Your task to perform on an android device: turn off javascript in the chrome app Image 0: 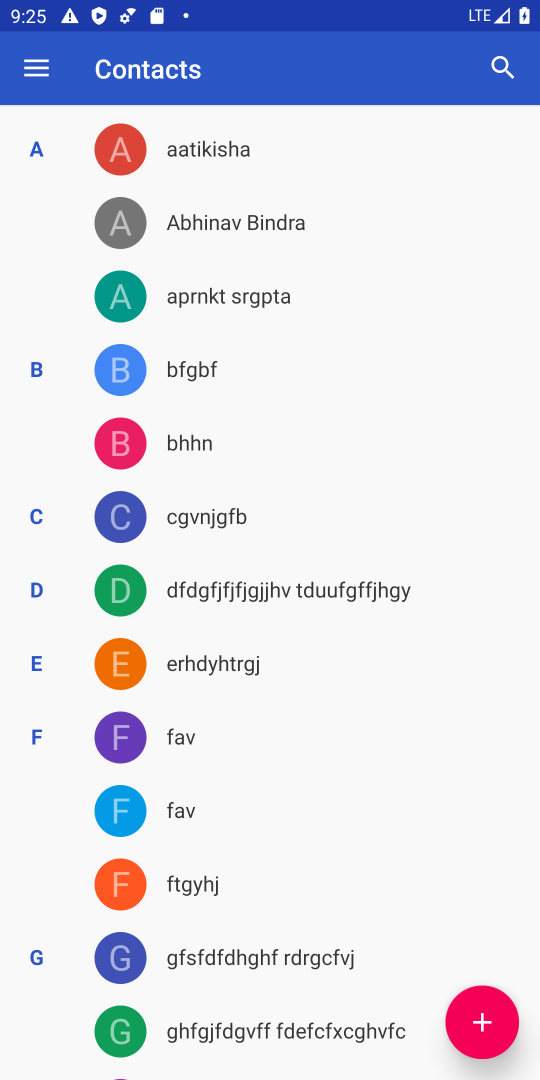
Step 0: press home button
Your task to perform on an android device: turn off javascript in the chrome app Image 1: 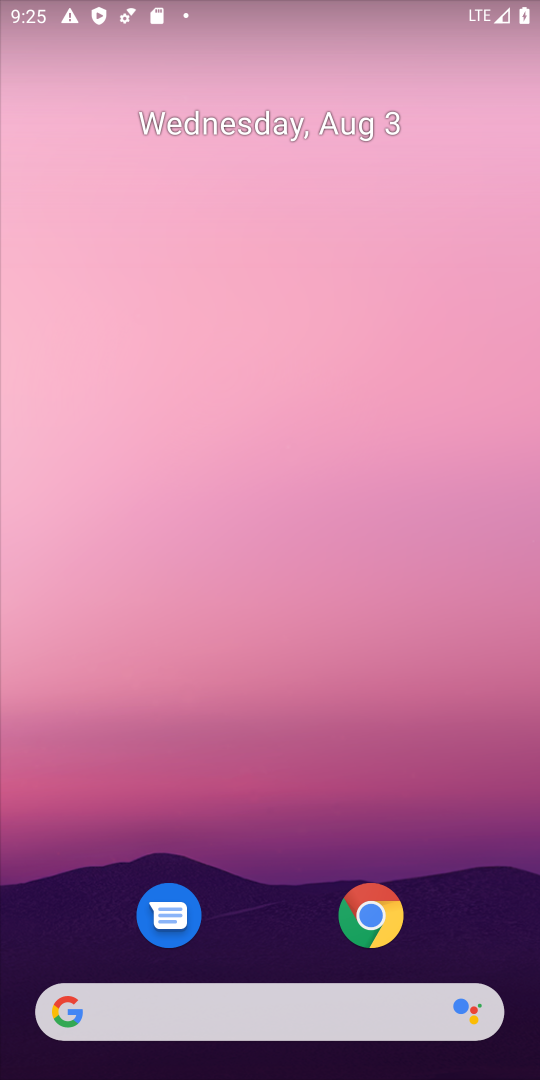
Step 1: click (357, 906)
Your task to perform on an android device: turn off javascript in the chrome app Image 2: 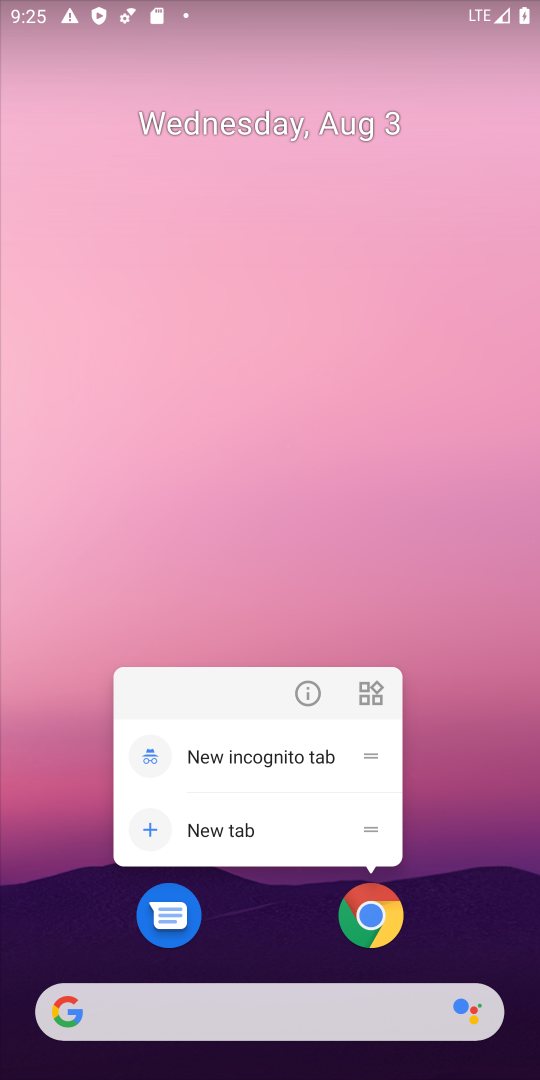
Step 2: click (387, 915)
Your task to perform on an android device: turn off javascript in the chrome app Image 3: 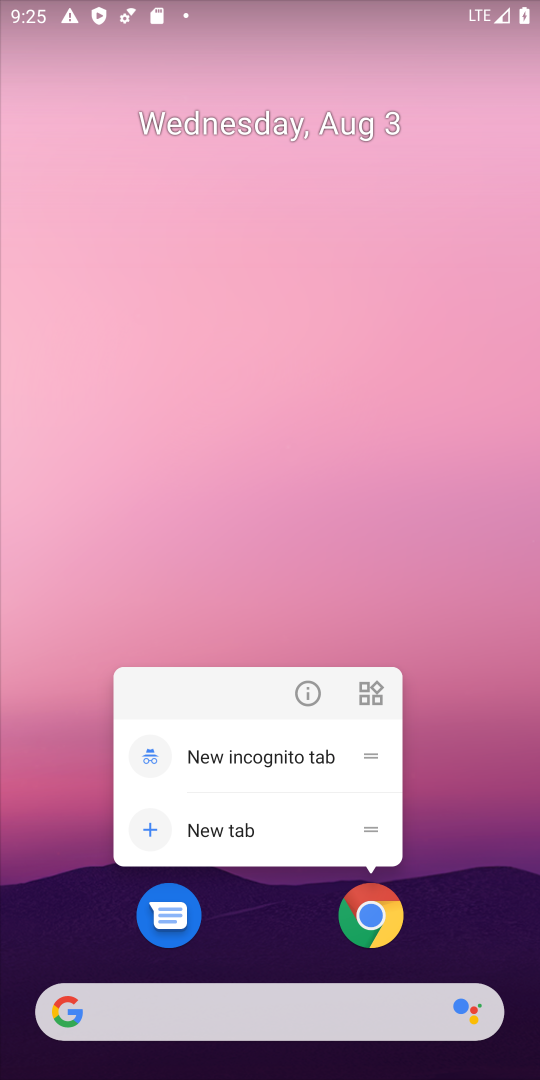
Step 3: click (370, 909)
Your task to perform on an android device: turn off javascript in the chrome app Image 4: 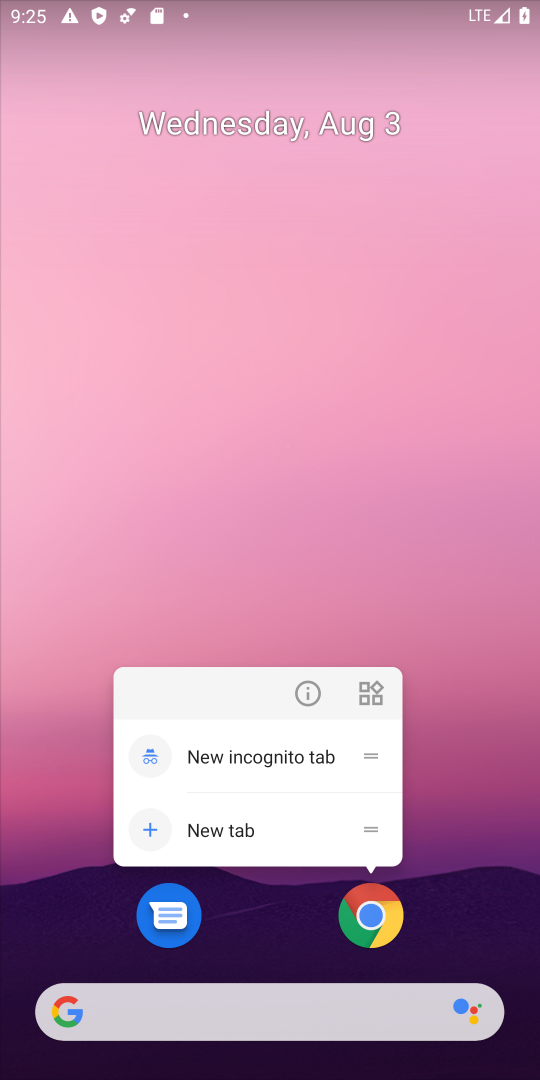
Step 4: click (354, 909)
Your task to perform on an android device: turn off javascript in the chrome app Image 5: 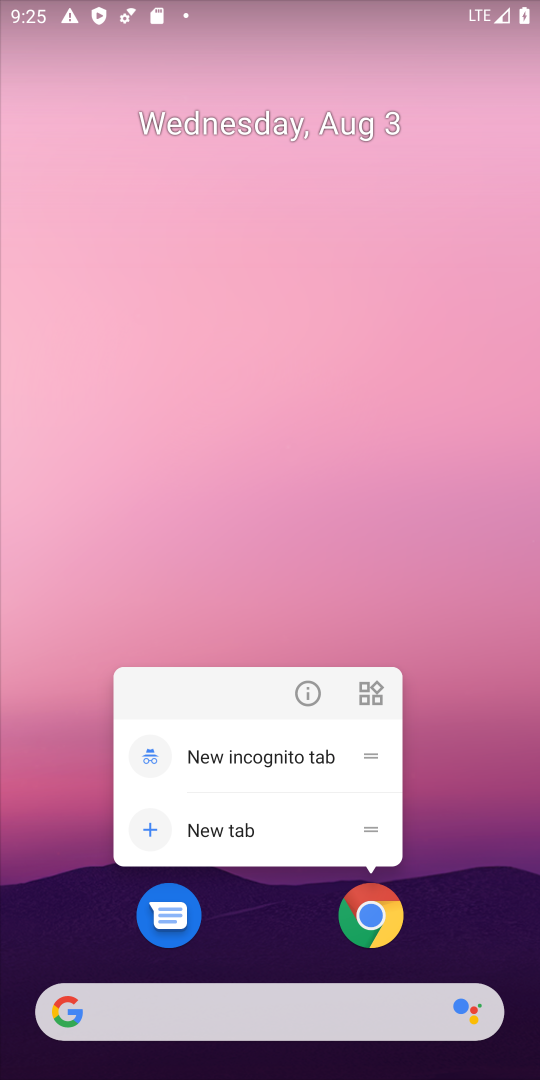
Step 5: click (371, 923)
Your task to perform on an android device: turn off javascript in the chrome app Image 6: 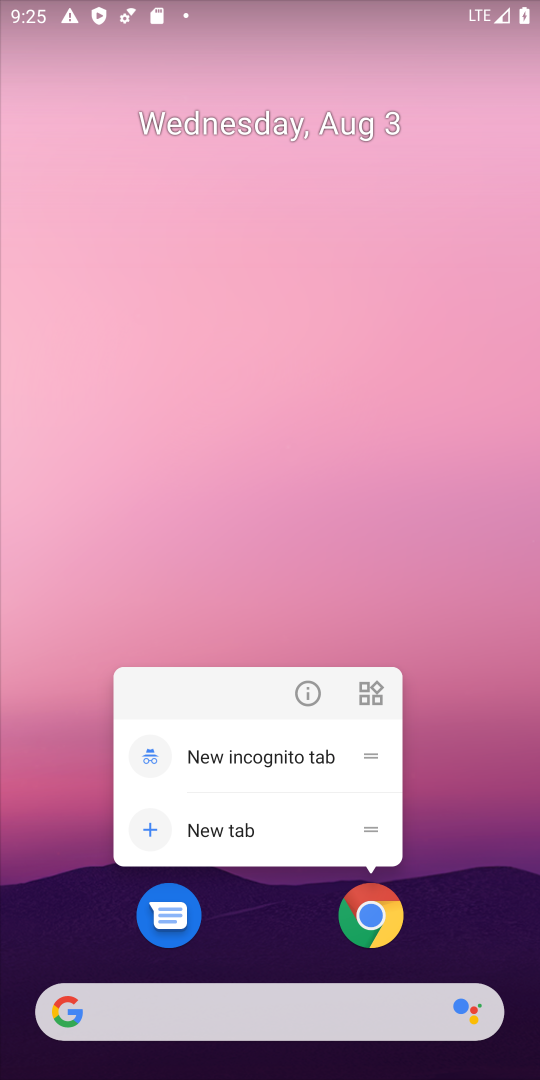
Step 6: click (353, 890)
Your task to perform on an android device: turn off javascript in the chrome app Image 7: 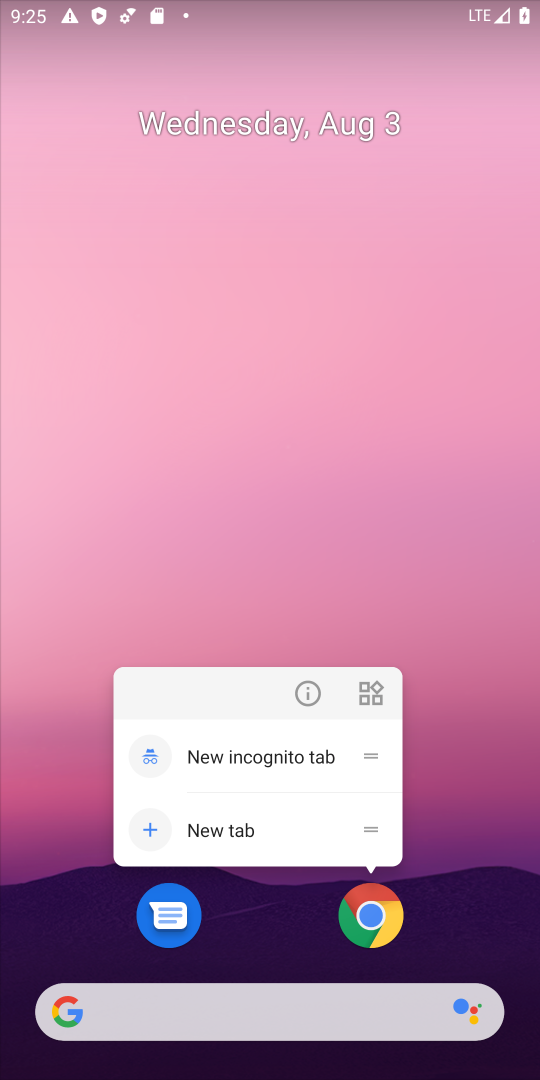
Step 7: click (368, 913)
Your task to perform on an android device: turn off javascript in the chrome app Image 8: 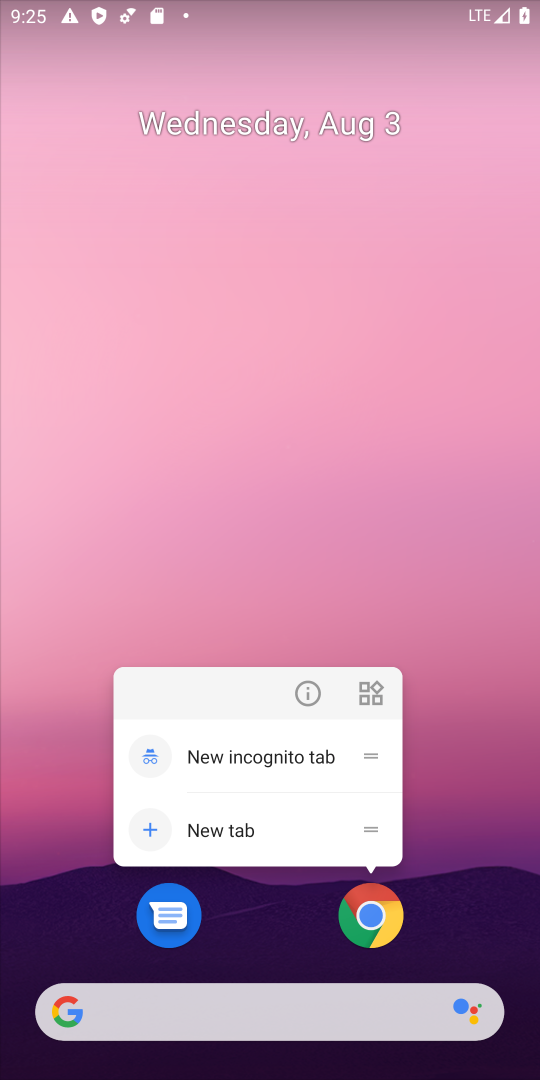
Step 8: click (365, 937)
Your task to perform on an android device: turn off javascript in the chrome app Image 9: 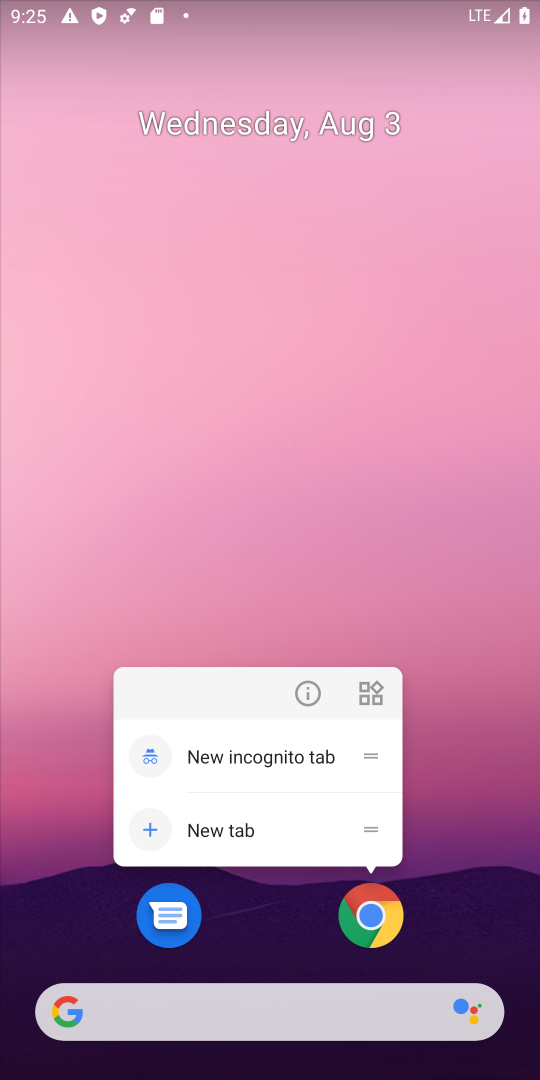
Step 9: click (341, 905)
Your task to perform on an android device: turn off javascript in the chrome app Image 10: 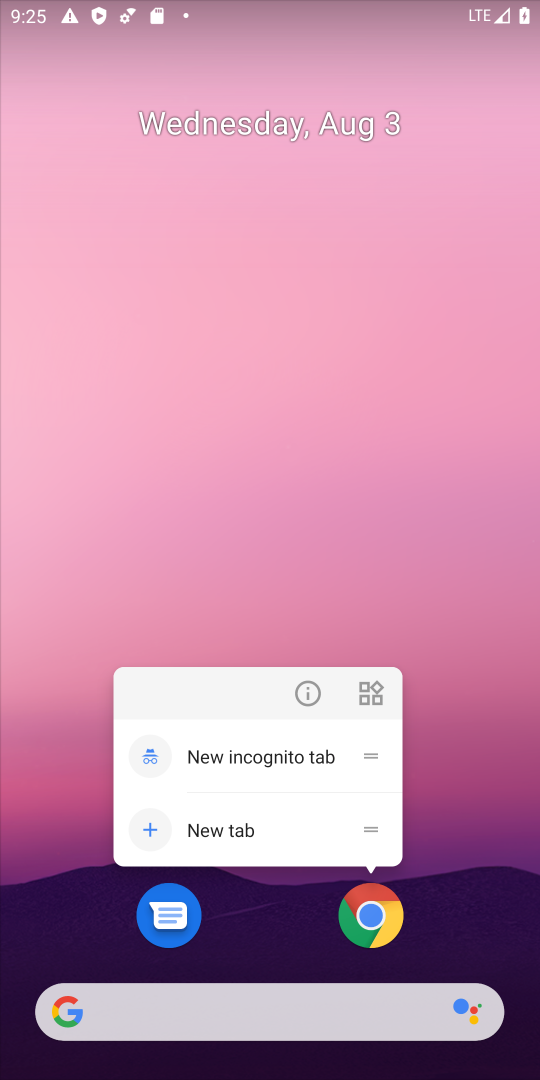
Step 10: click (376, 918)
Your task to perform on an android device: turn off javascript in the chrome app Image 11: 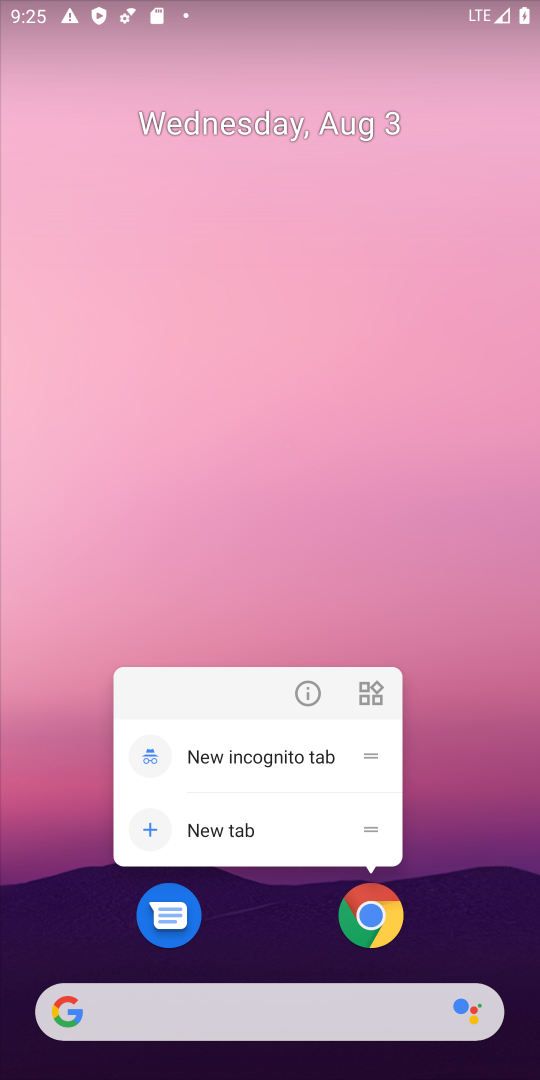
Step 11: drag from (216, 933) to (154, 389)
Your task to perform on an android device: turn off javascript in the chrome app Image 12: 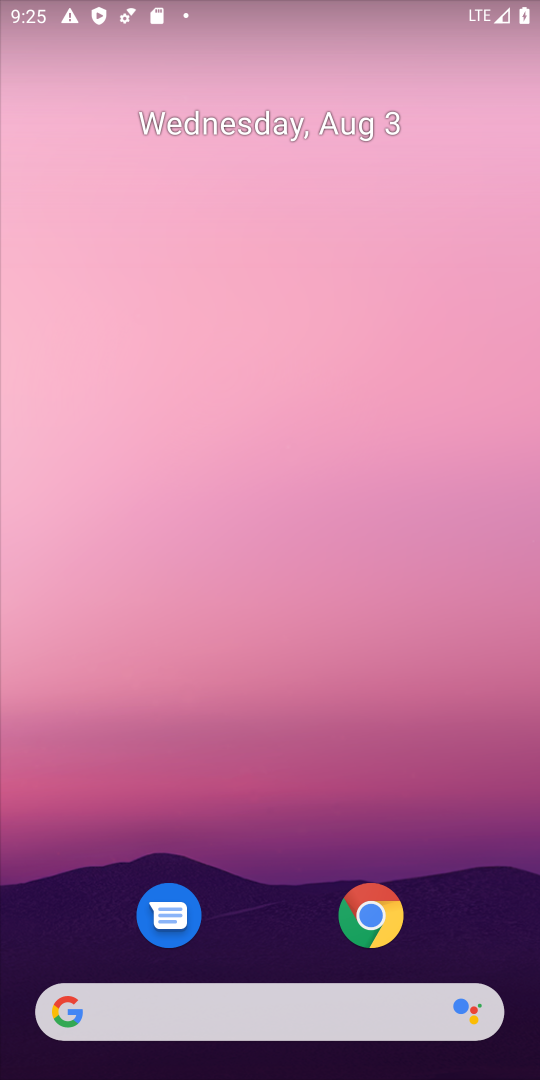
Step 12: drag from (316, 974) to (292, 342)
Your task to perform on an android device: turn off javascript in the chrome app Image 13: 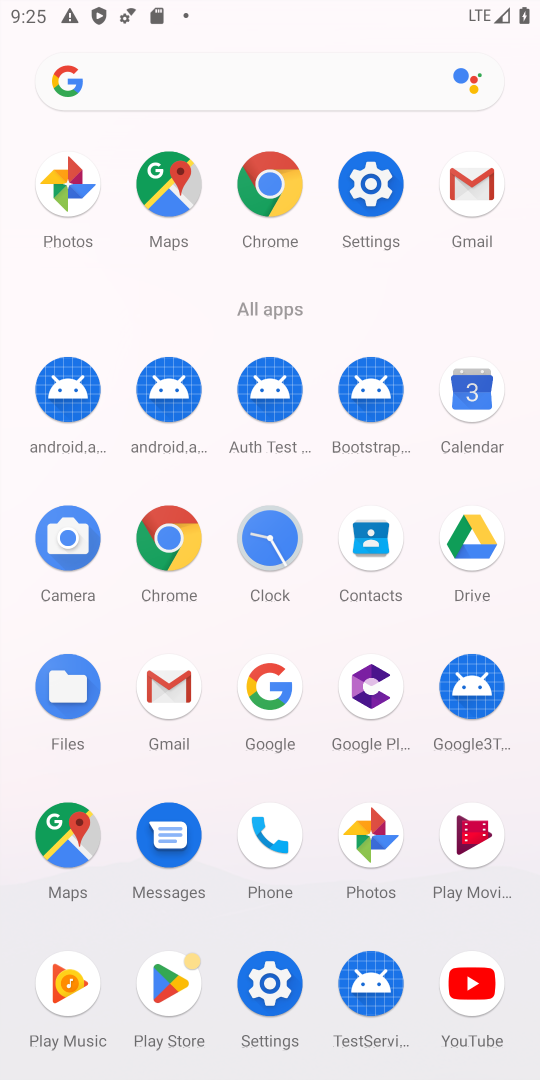
Step 13: click (154, 559)
Your task to perform on an android device: turn off javascript in the chrome app Image 14: 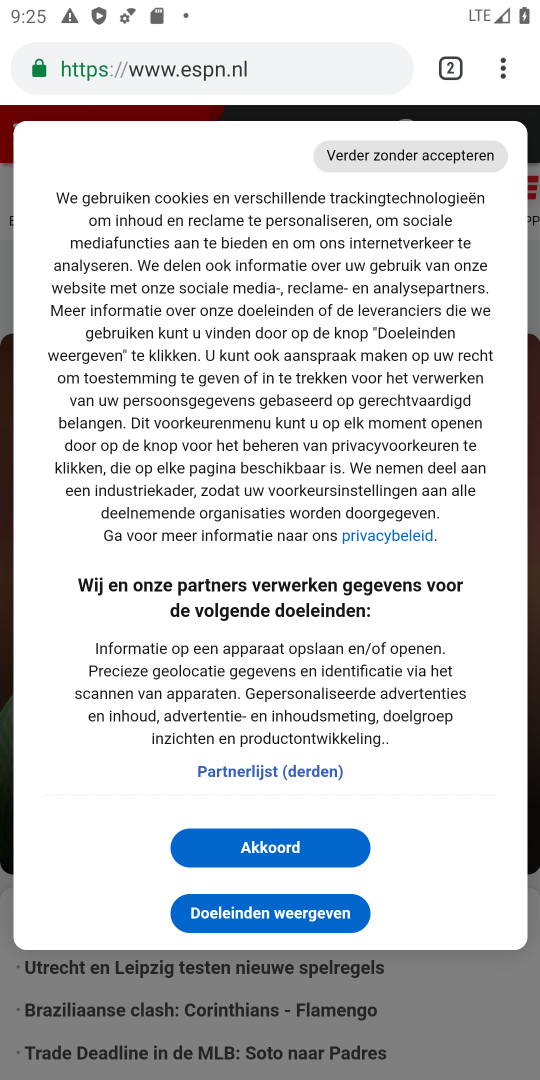
Step 14: click (491, 56)
Your task to perform on an android device: turn off javascript in the chrome app Image 15: 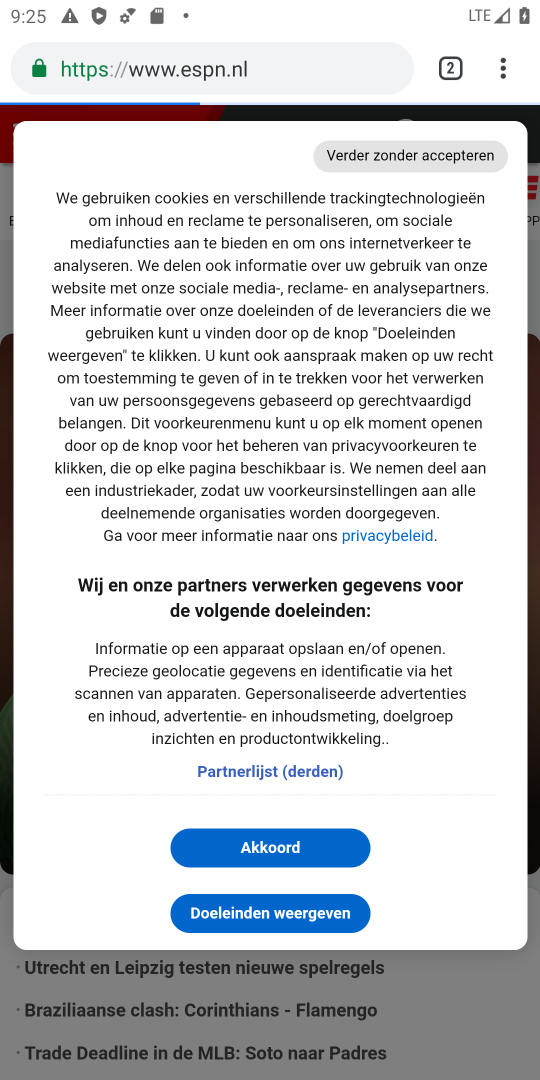
Step 15: click (500, 70)
Your task to perform on an android device: turn off javascript in the chrome app Image 16: 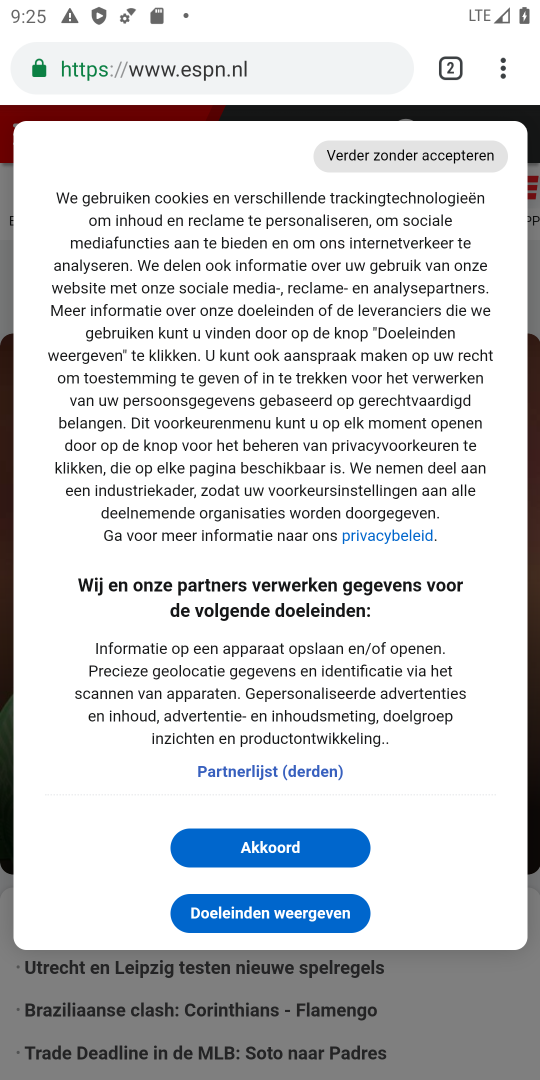
Step 16: click (511, 51)
Your task to perform on an android device: turn off javascript in the chrome app Image 17: 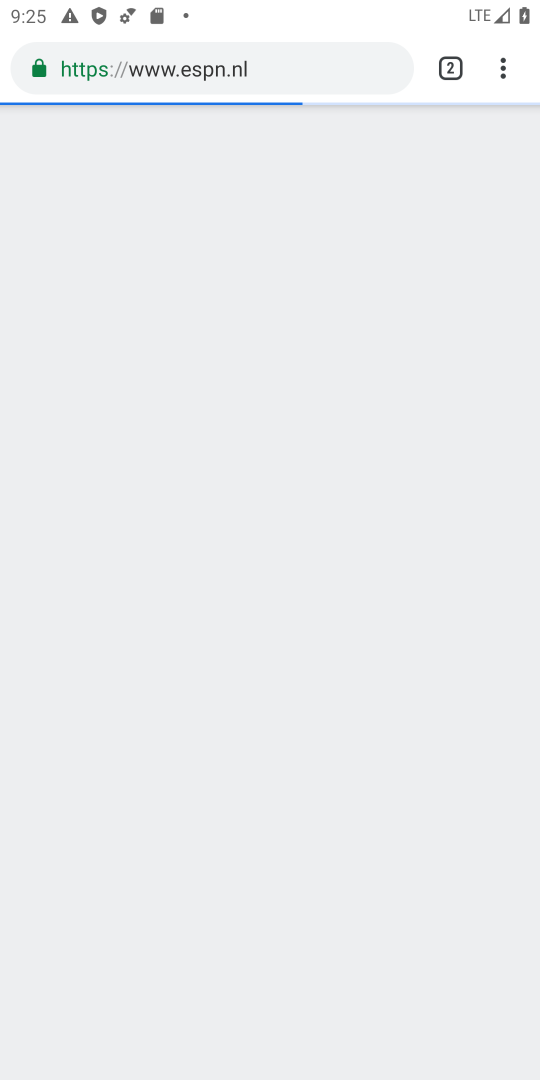
Step 17: click (500, 62)
Your task to perform on an android device: turn off javascript in the chrome app Image 18: 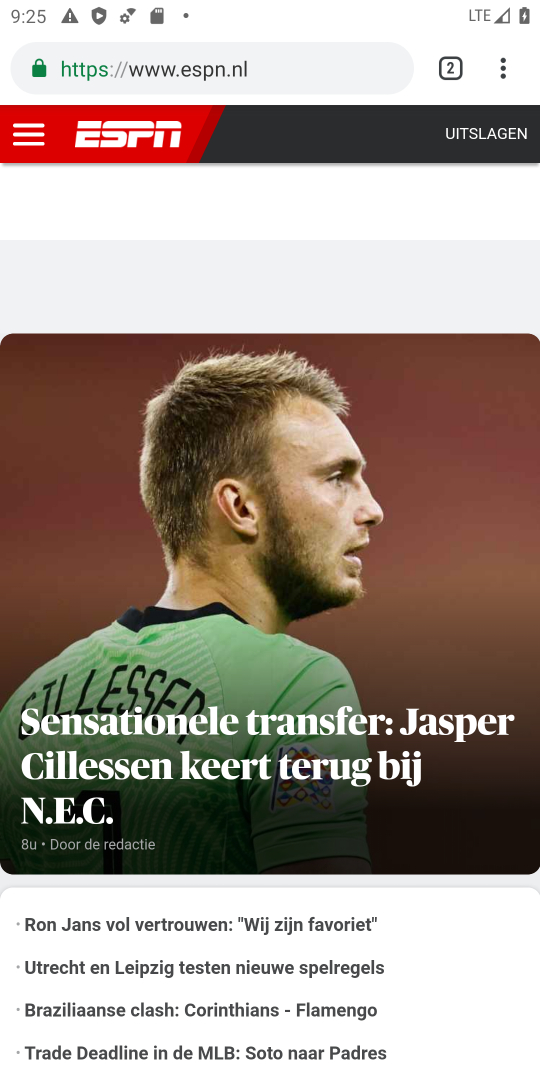
Step 18: click (500, 62)
Your task to perform on an android device: turn off javascript in the chrome app Image 19: 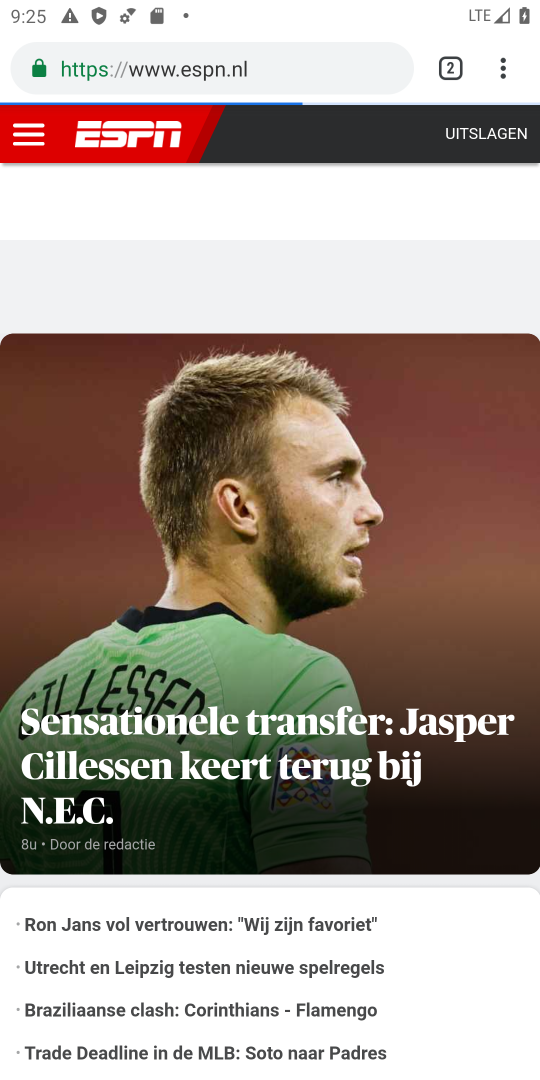
Step 19: click (500, 62)
Your task to perform on an android device: turn off javascript in the chrome app Image 20: 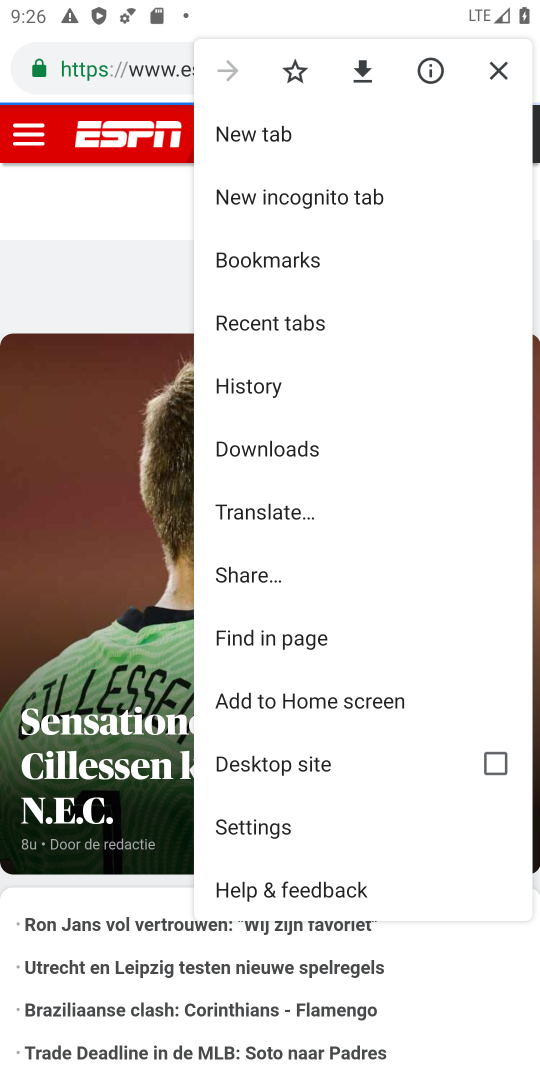
Step 20: click (247, 819)
Your task to perform on an android device: turn off javascript in the chrome app Image 21: 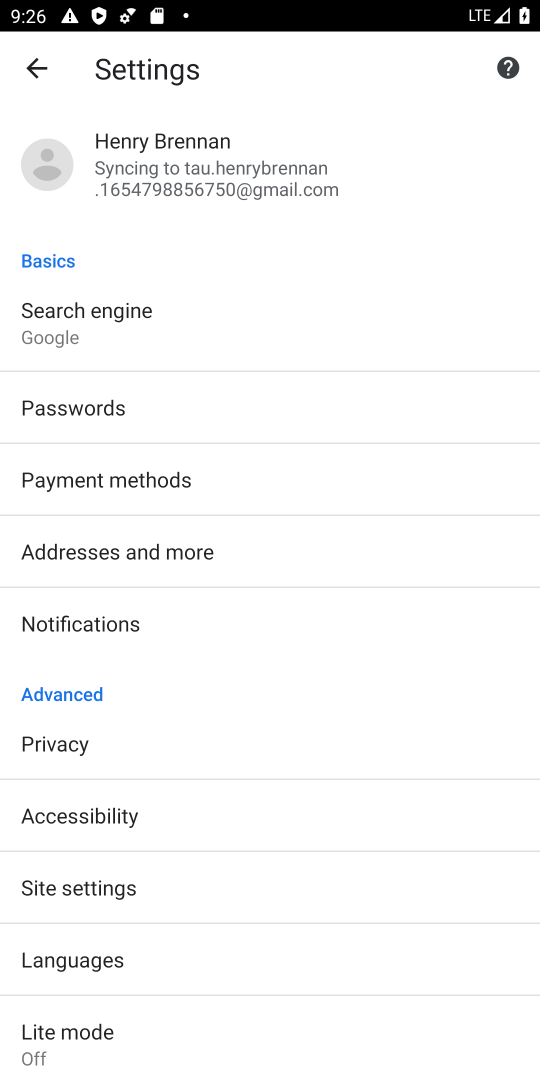
Step 21: click (59, 891)
Your task to perform on an android device: turn off javascript in the chrome app Image 22: 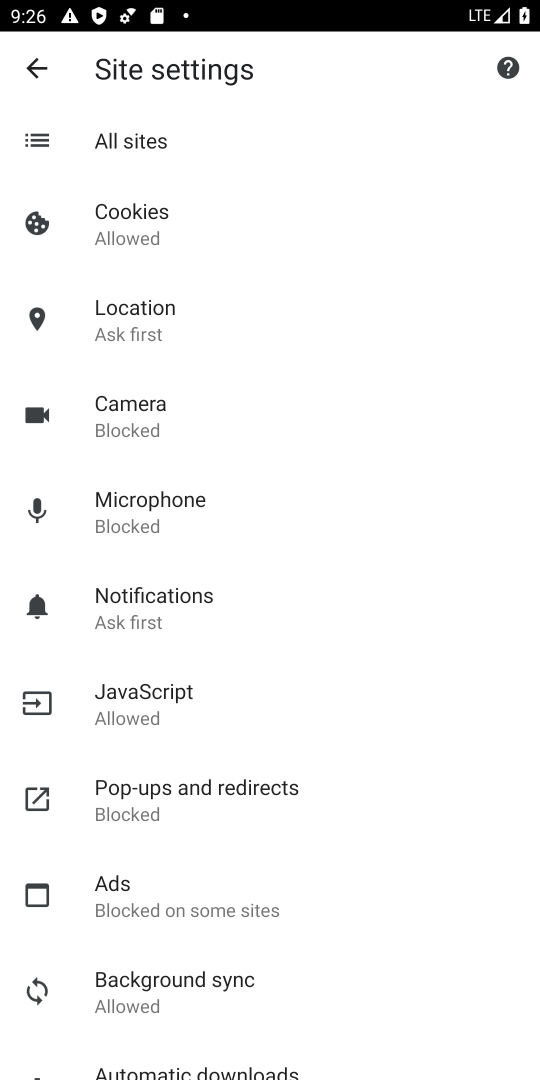
Step 22: click (124, 677)
Your task to perform on an android device: turn off javascript in the chrome app Image 23: 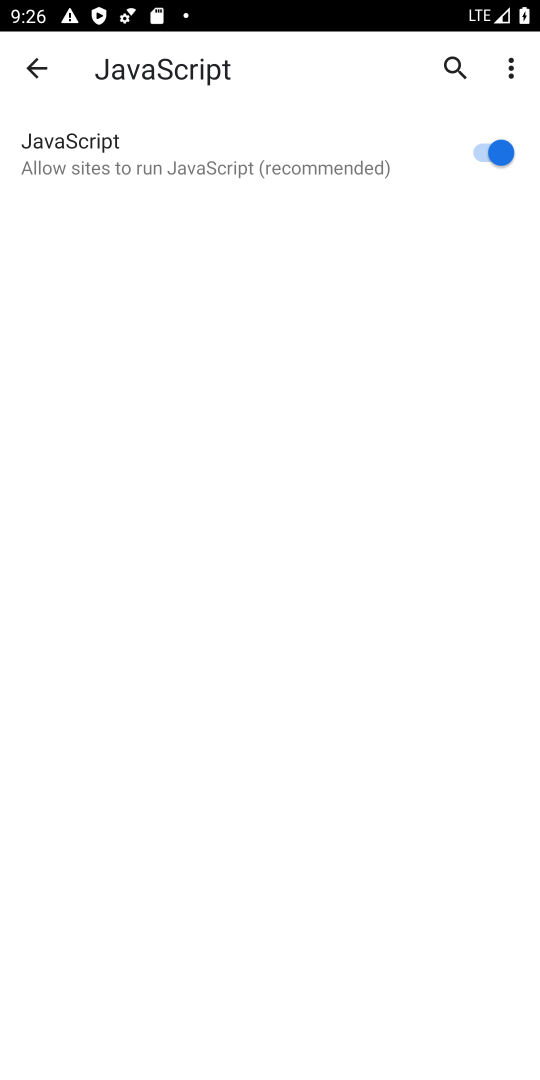
Step 23: click (471, 145)
Your task to perform on an android device: turn off javascript in the chrome app Image 24: 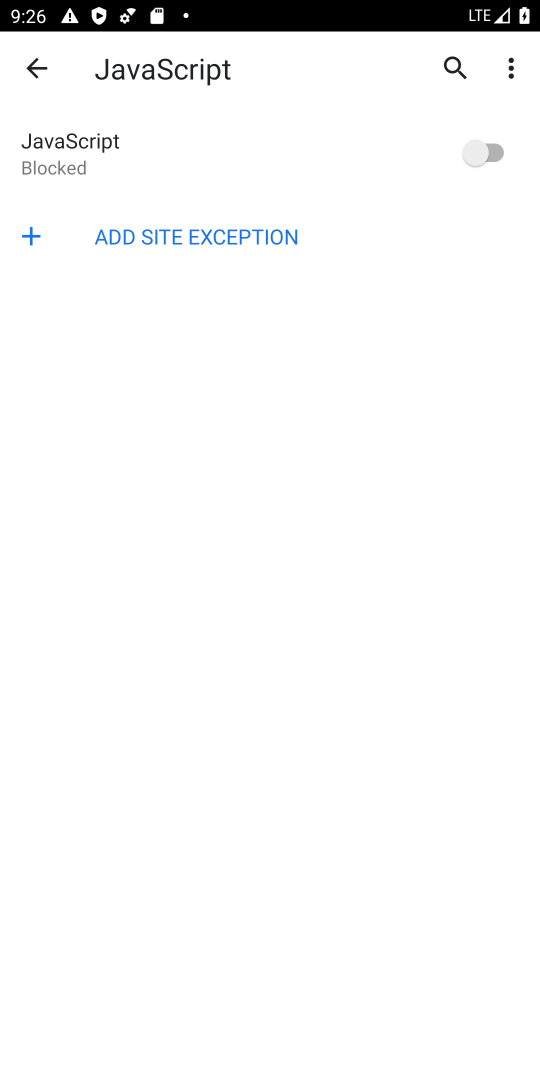
Step 24: task complete